Your task to perform on an android device: Go to wifi settings Image 0: 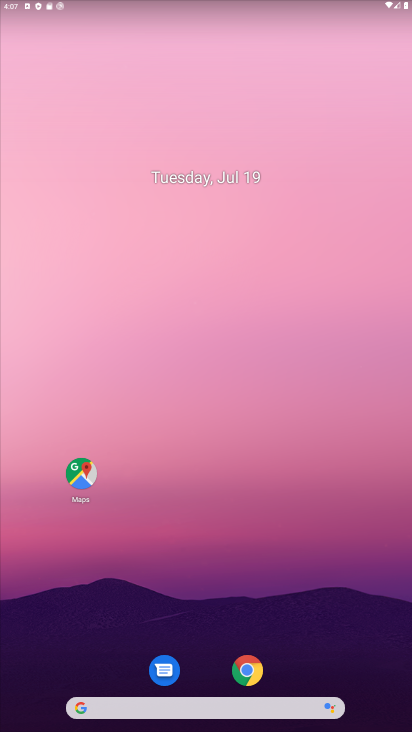
Step 0: drag from (333, 664) to (327, 137)
Your task to perform on an android device: Go to wifi settings Image 1: 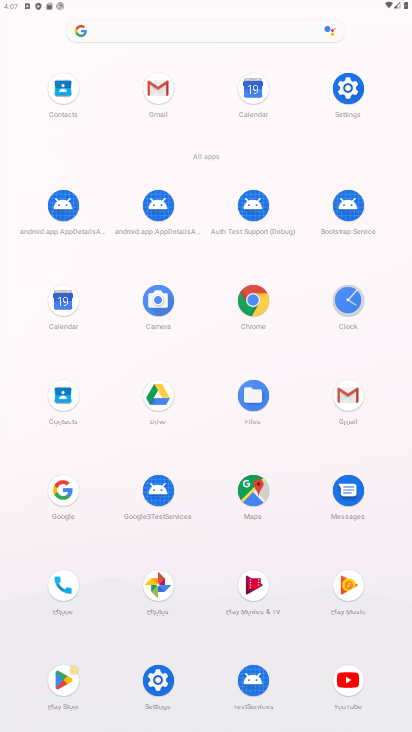
Step 1: click (337, 81)
Your task to perform on an android device: Go to wifi settings Image 2: 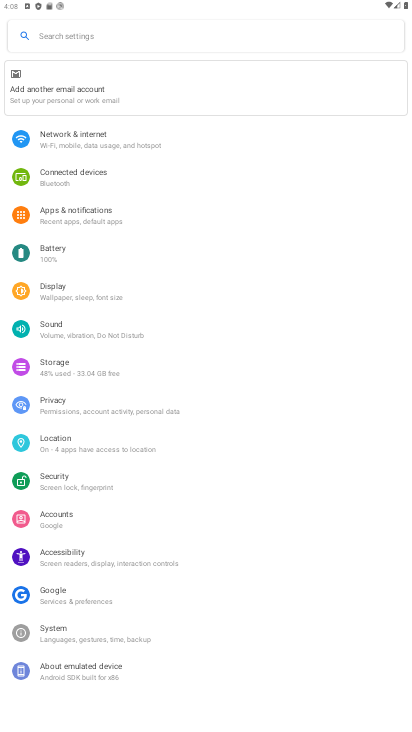
Step 2: click (138, 136)
Your task to perform on an android device: Go to wifi settings Image 3: 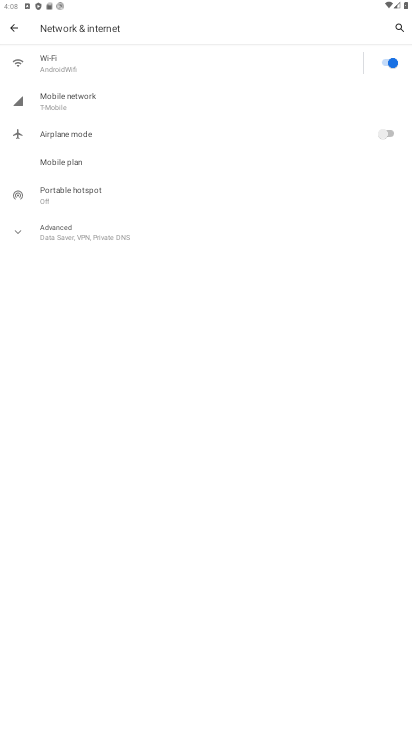
Step 3: click (76, 61)
Your task to perform on an android device: Go to wifi settings Image 4: 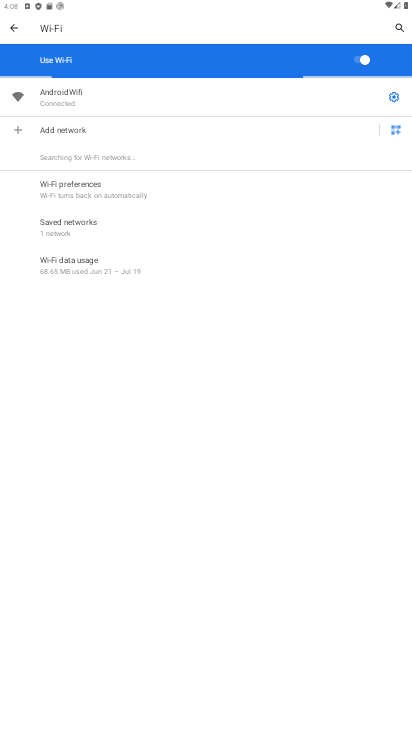
Step 4: task complete